Your task to perform on an android device: Go to settings Image 0: 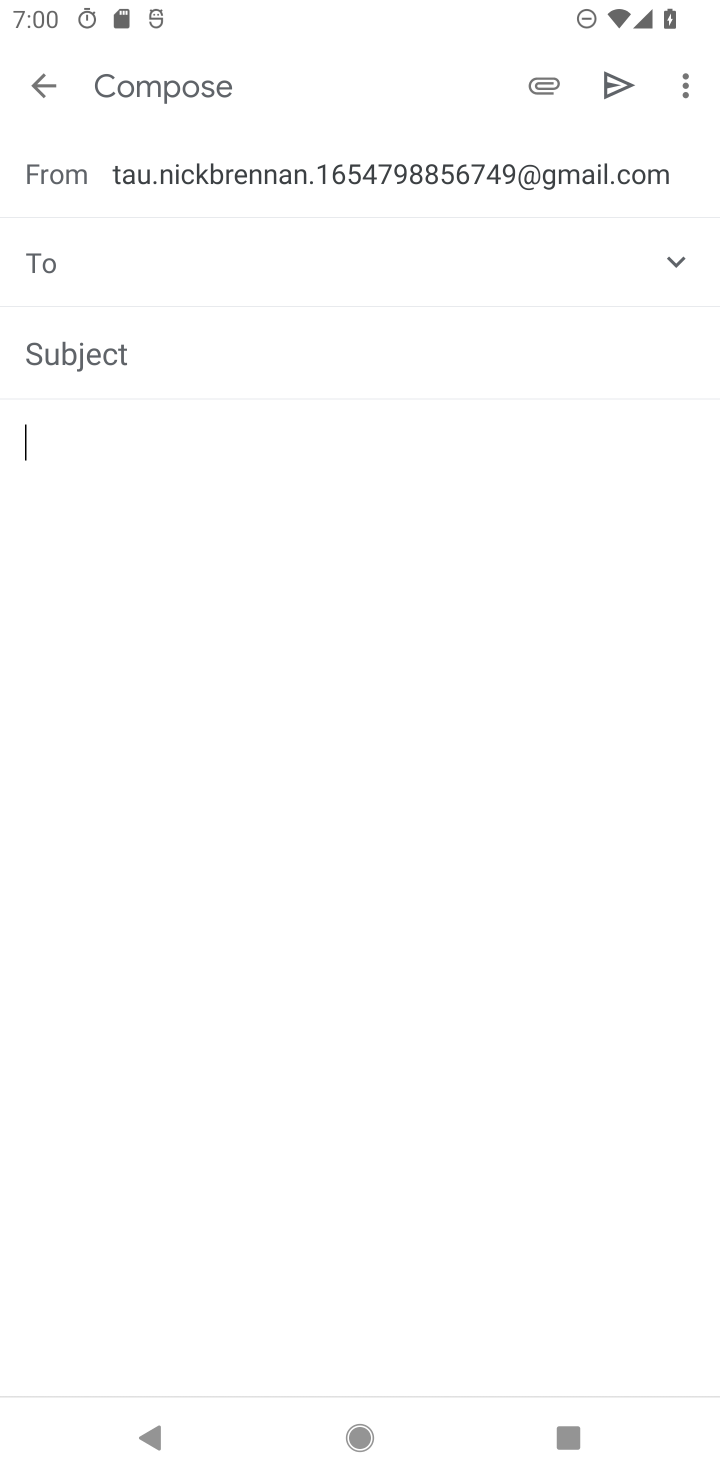
Step 0: drag from (515, 416) to (410, 743)
Your task to perform on an android device: Go to settings Image 1: 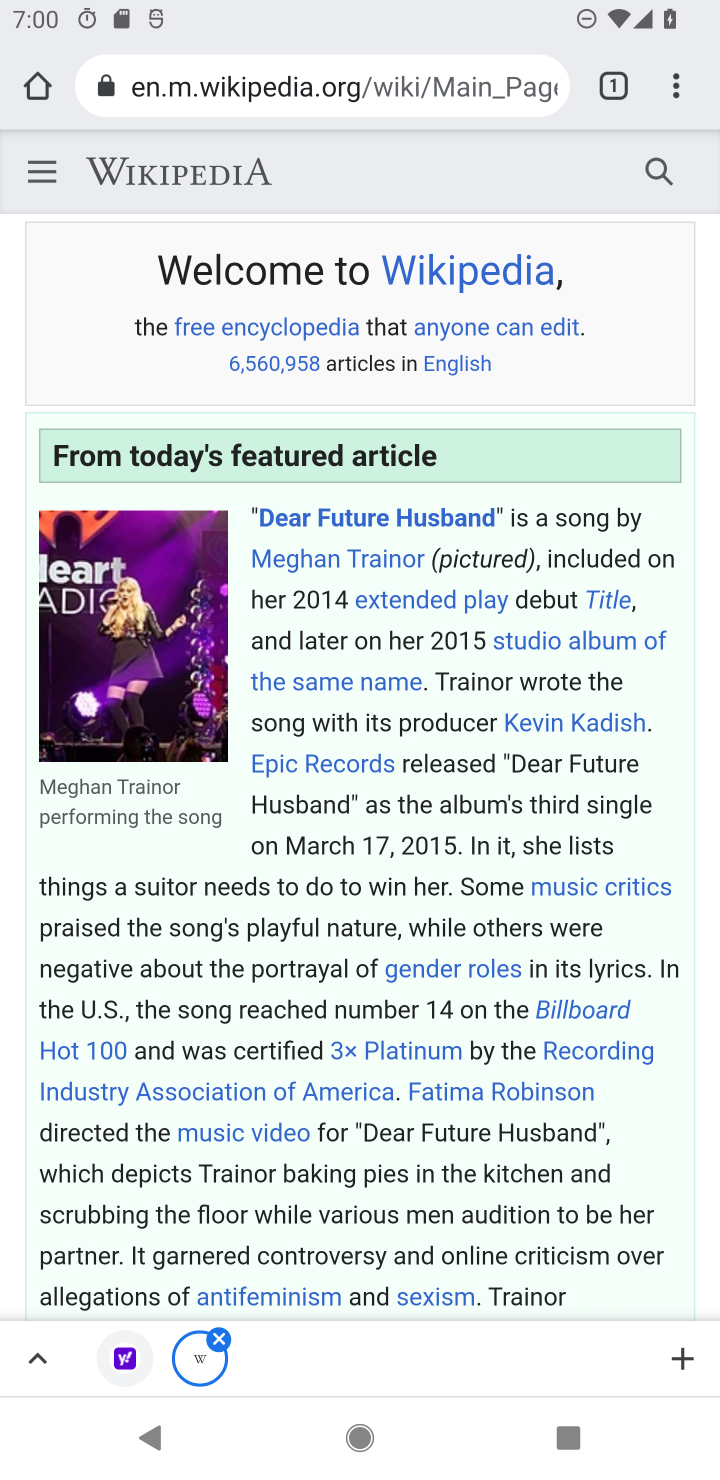
Step 1: press home button
Your task to perform on an android device: Go to settings Image 2: 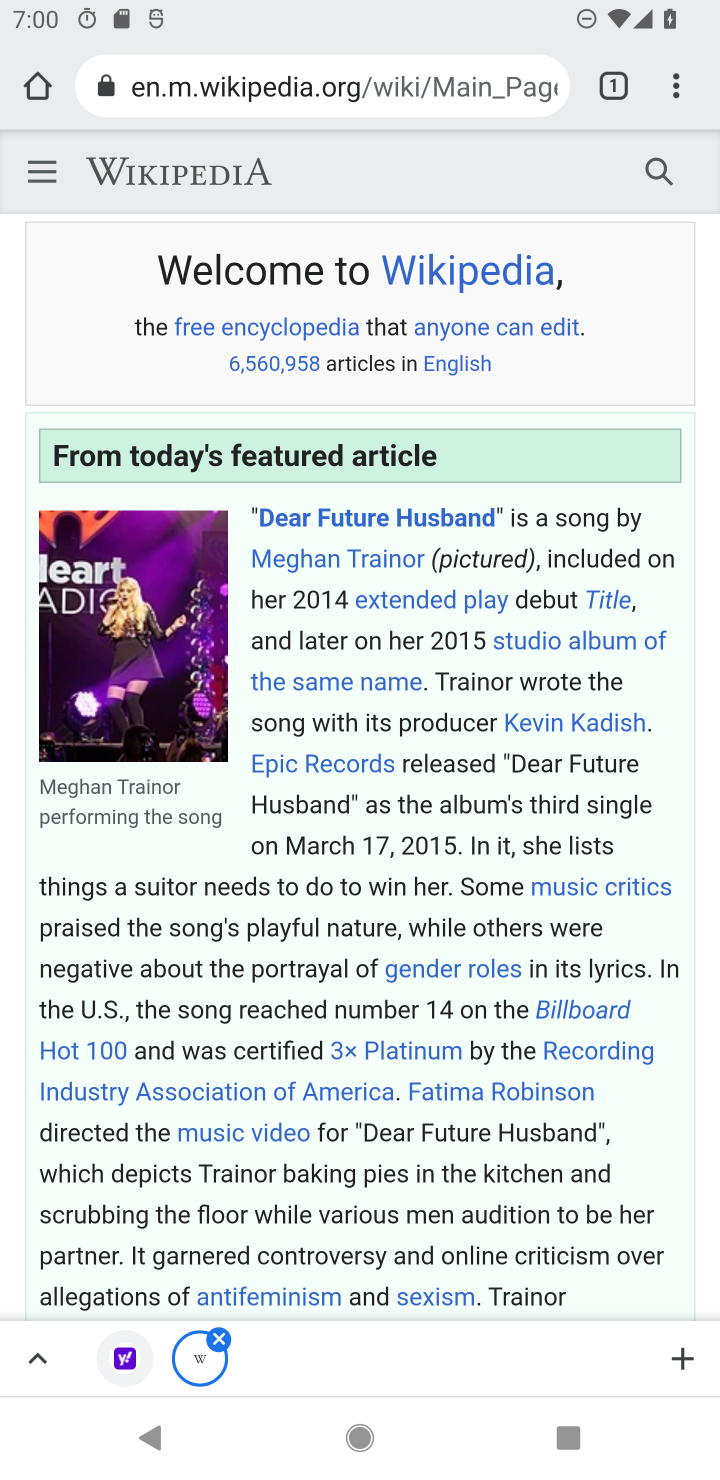
Step 2: drag from (359, 1122) to (527, 316)
Your task to perform on an android device: Go to settings Image 3: 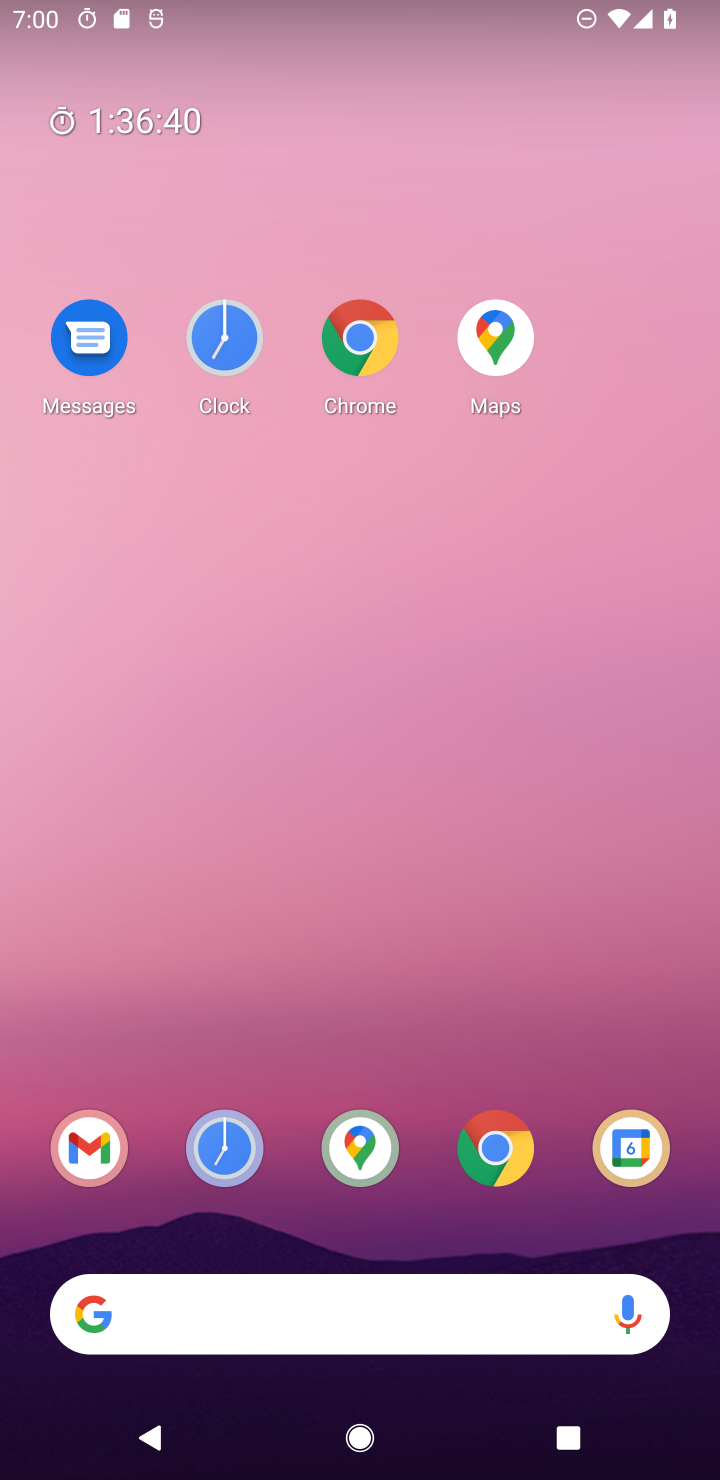
Step 3: drag from (492, 405) to (516, 320)
Your task to perform on an android device: Go to settings Image 4: 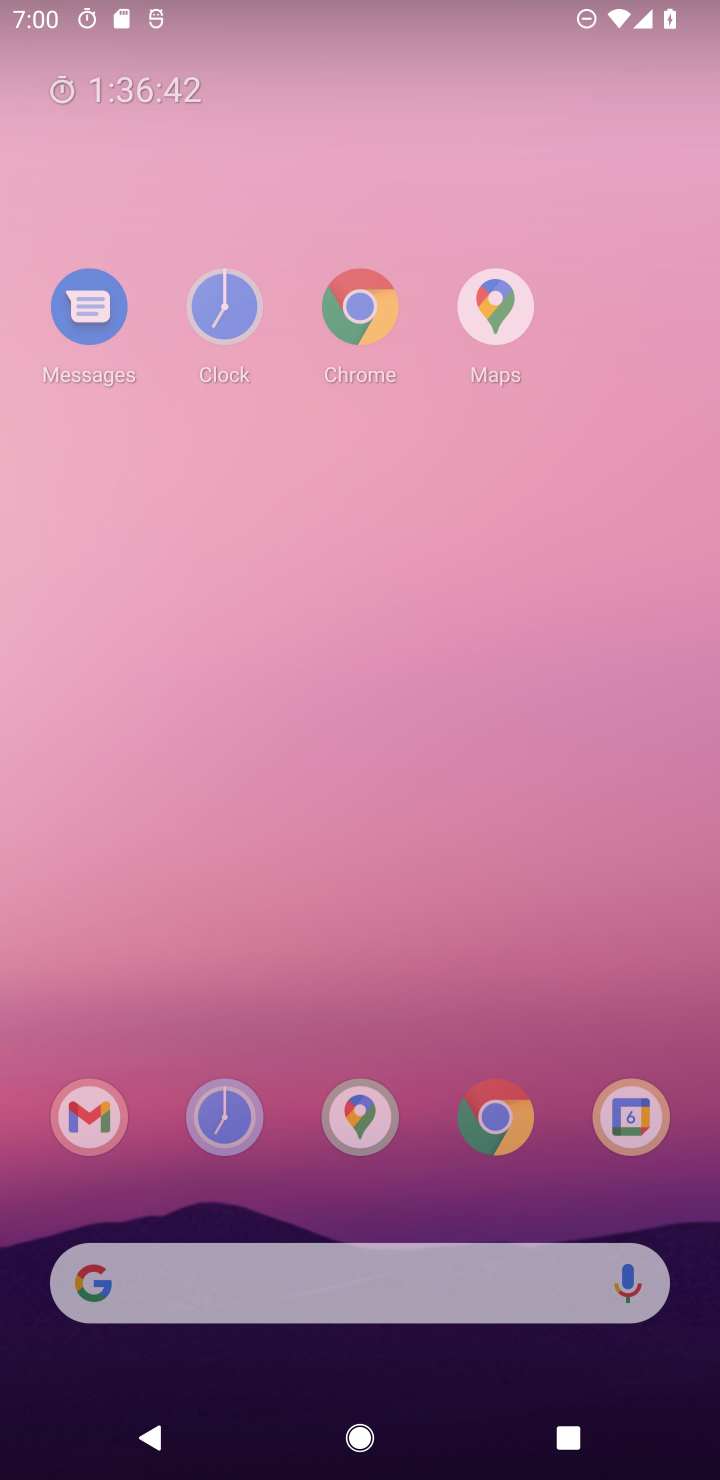
Step 4: drag from (434, 1145) to (606, 44)
Your task to perform on an android device: Go to settings Image 5: 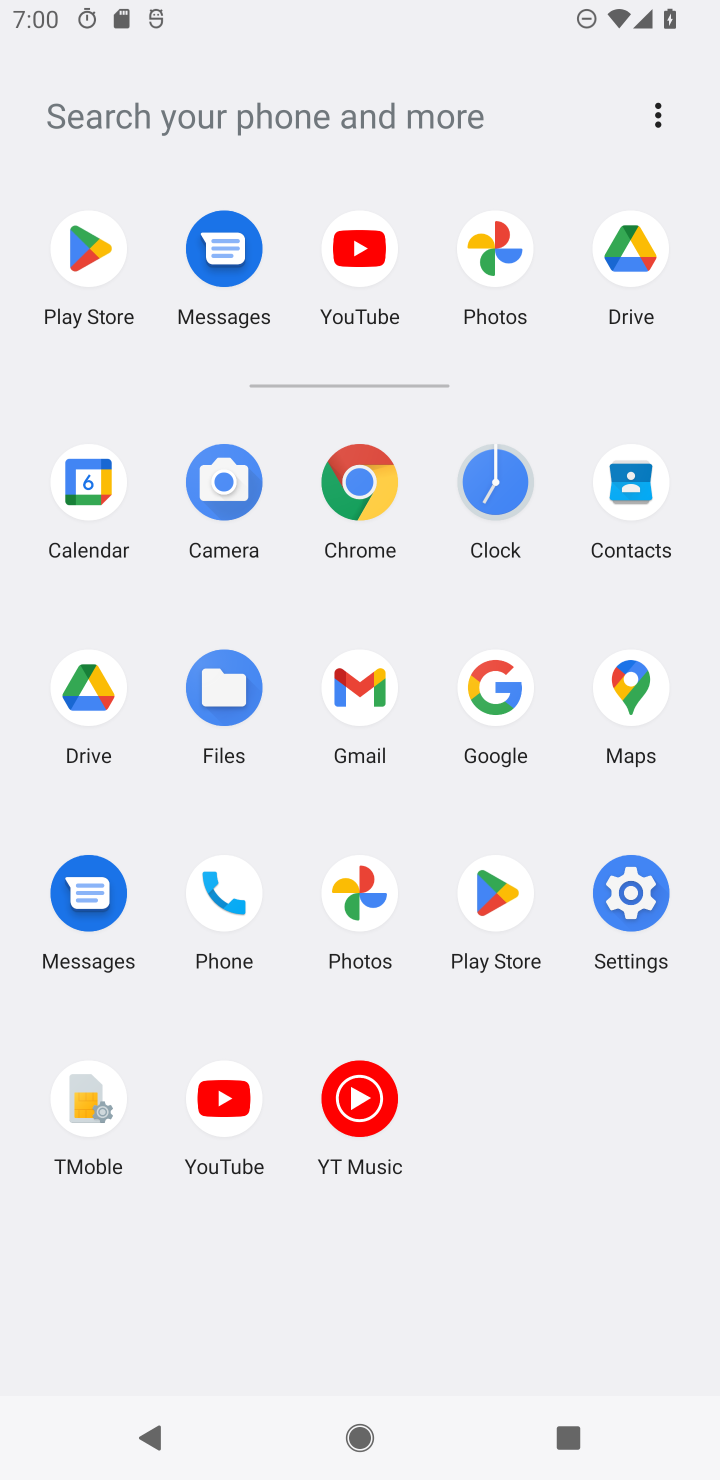
Step 5: click (645, 894)
Your task to perform on an android device: Go to settings Image 6: 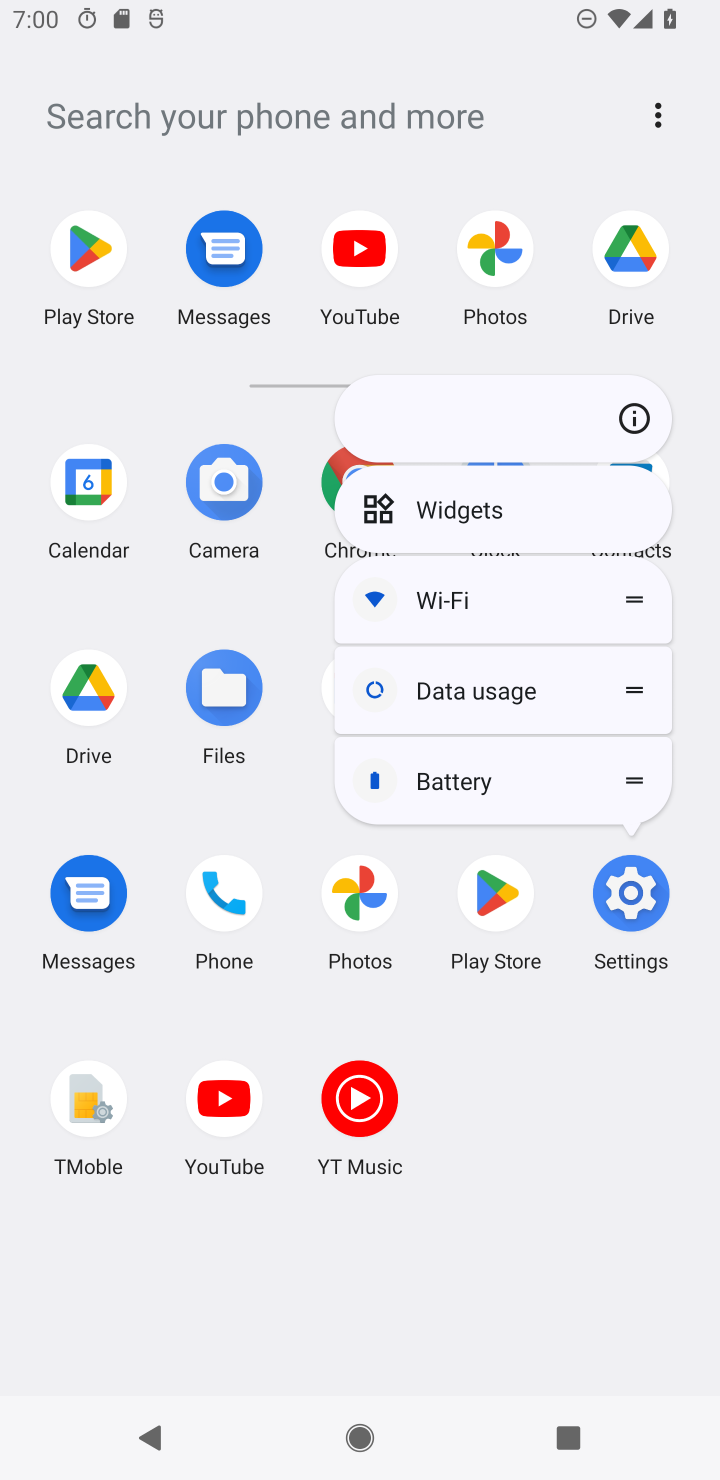
Step 6: click (646, 417)
Your task to perform on an android device: Go to settings Image 7: 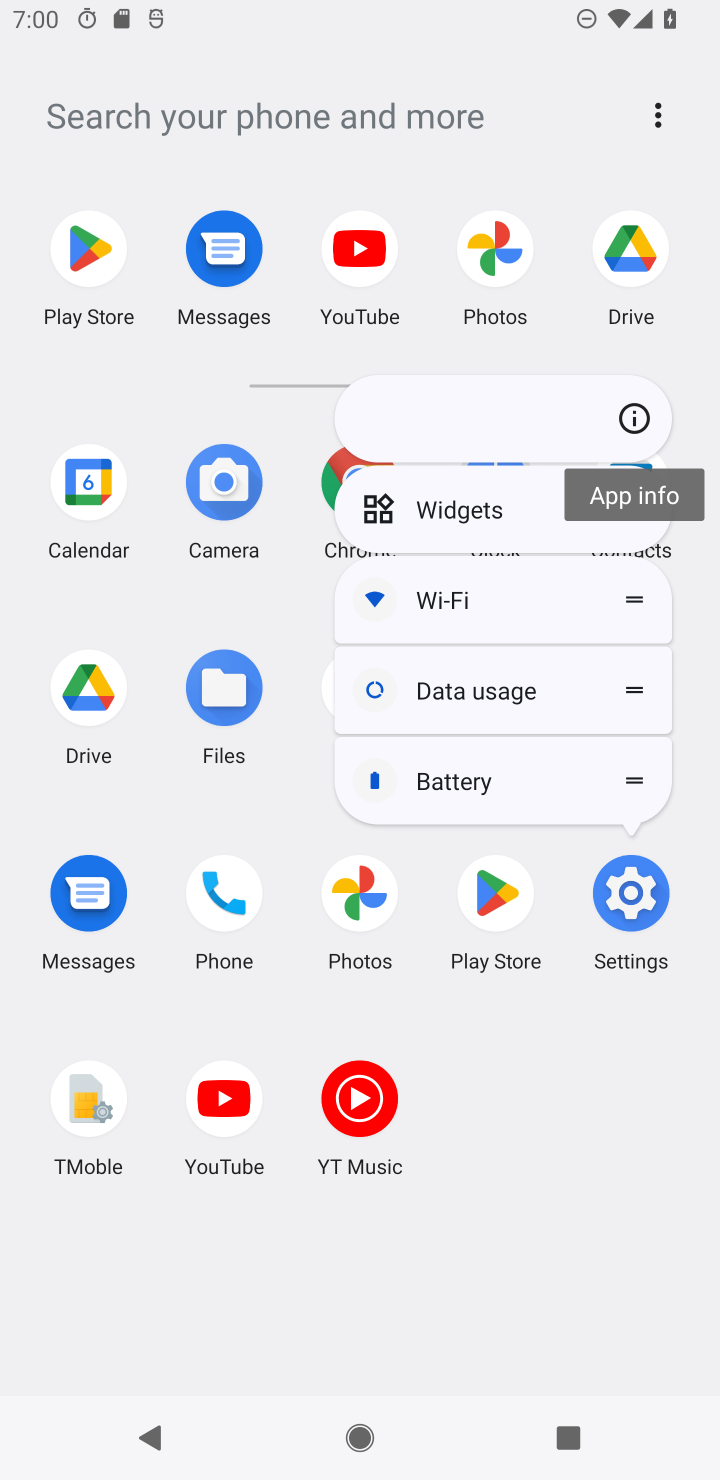
Step 7: click (623, 408)
Your task to perform on an android device: Go to settings Image 8: 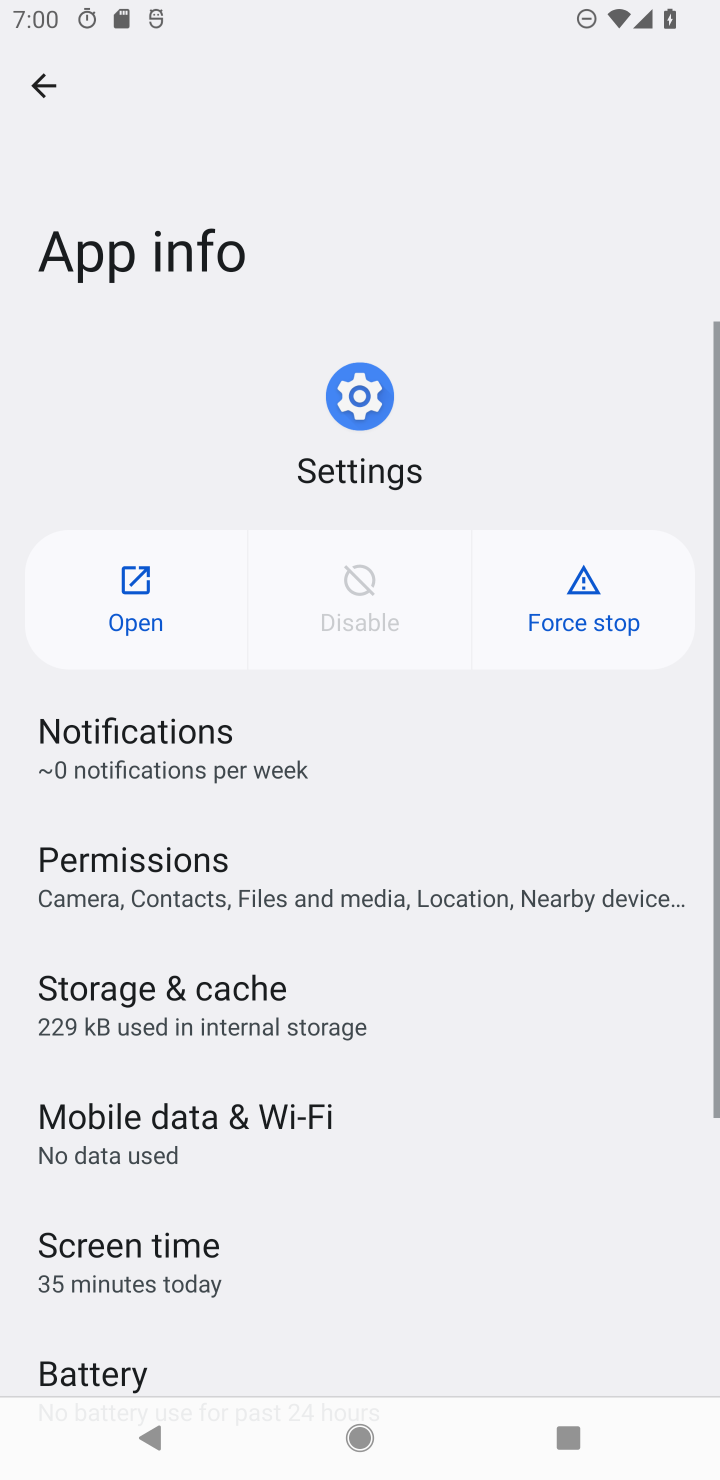
Step 8: click (144, 582)
Your task to perform on an android device: Go to settings Image 9: 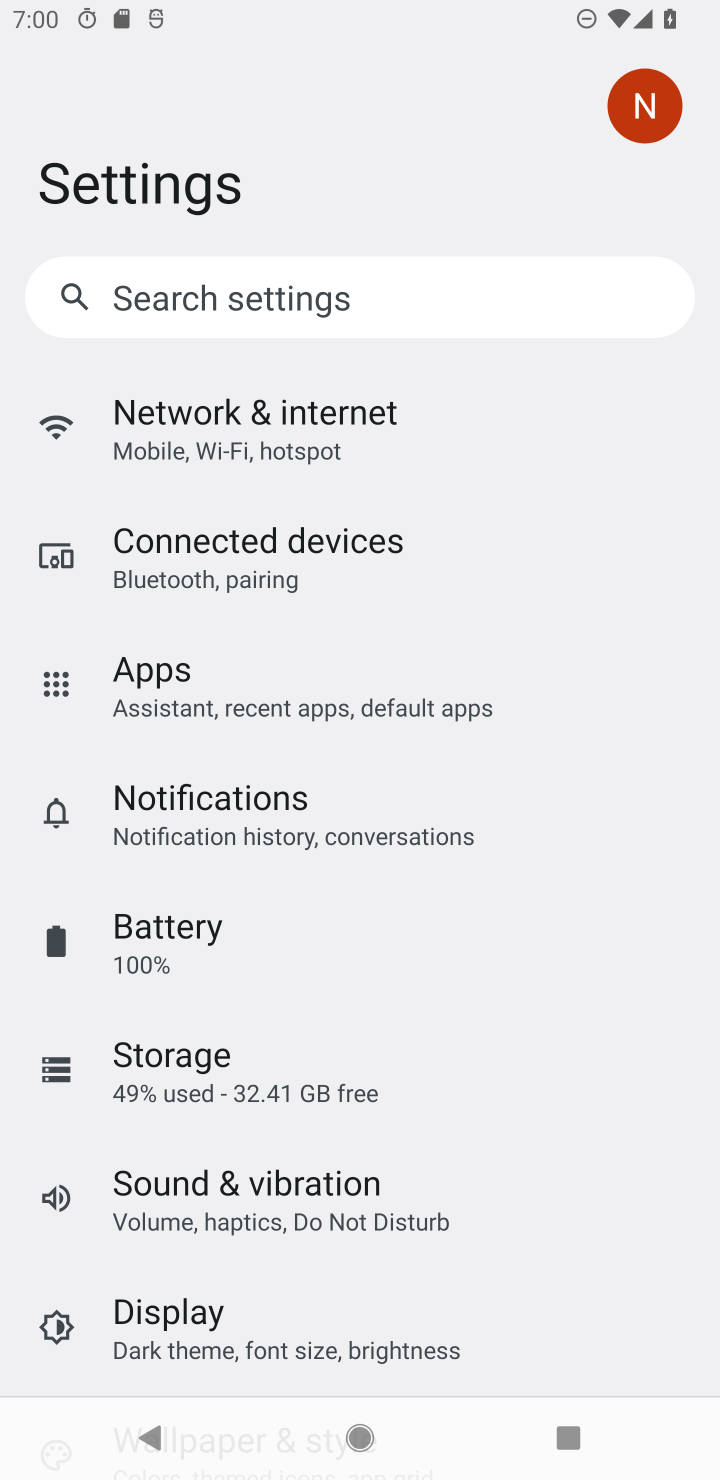
Step 9: task complete